Your task to perform on an android device: add a contact Image 0: 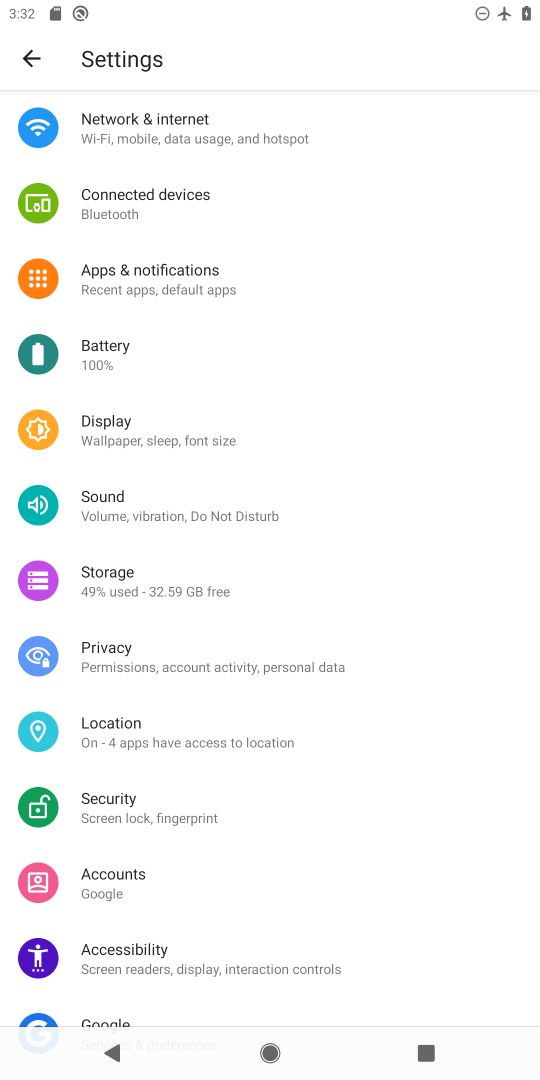
Step 0: press home button
Your task to perform on an android device: add a contact Image 1: 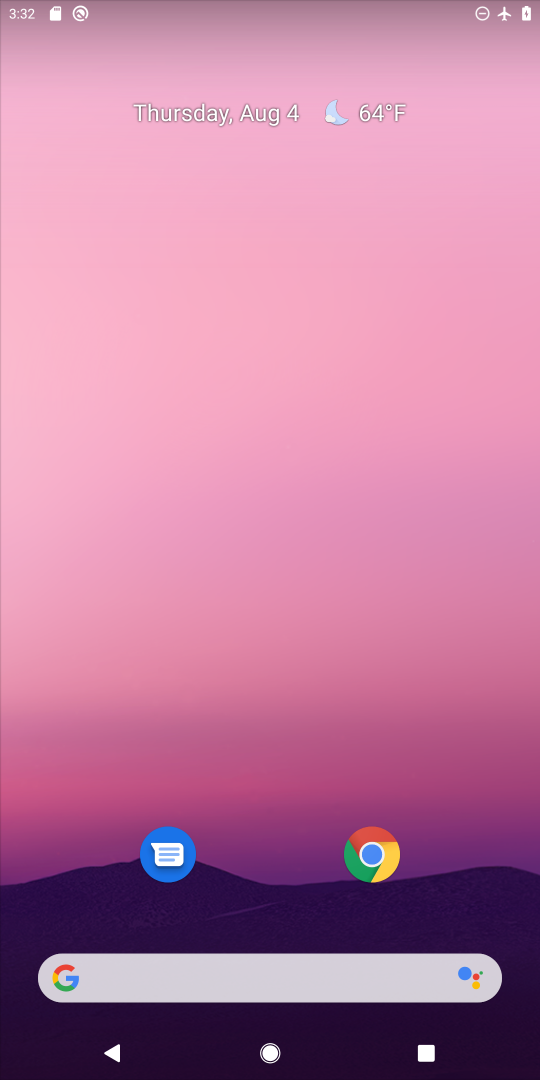
Step 1: drag from (276, 764) to (282, 233)
Your task to perform on an android device: add a contact Image 2: 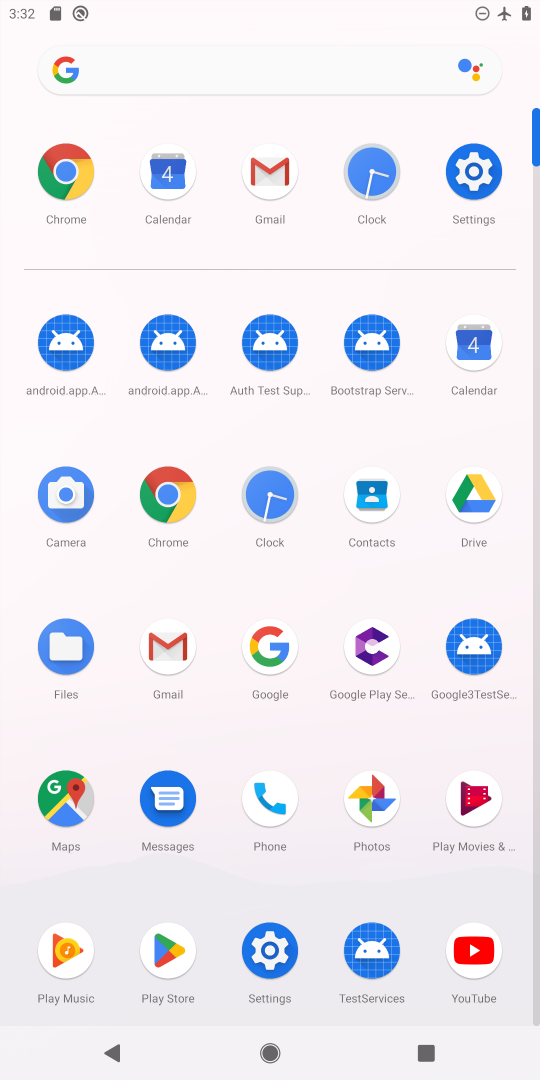
Step 2: click (363, 493)
Your task to perform on an android device: add a contact Image 3: 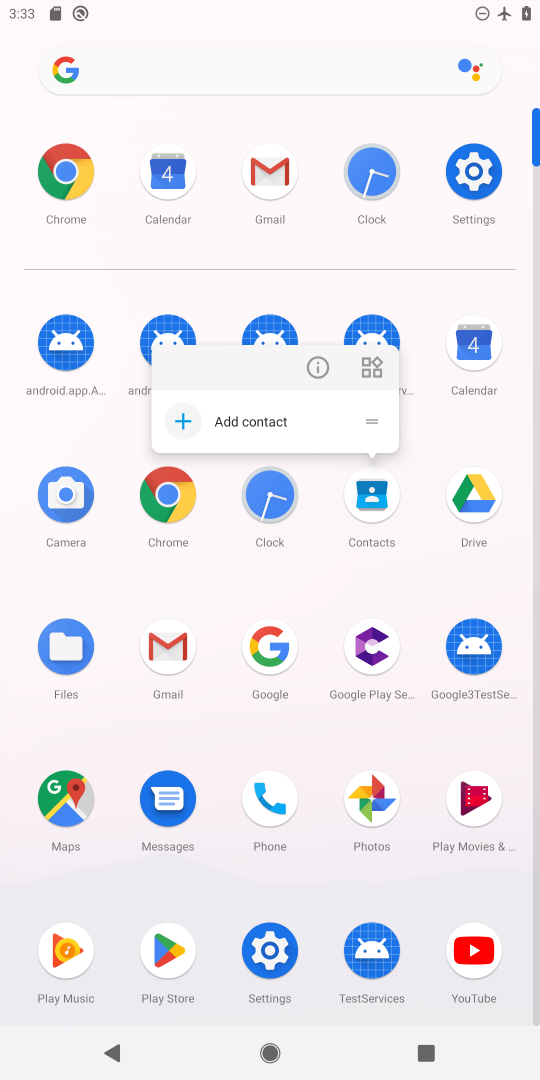
Step 3: click (369, 508)
Your task to perform on an android device: add a contact Image 4: 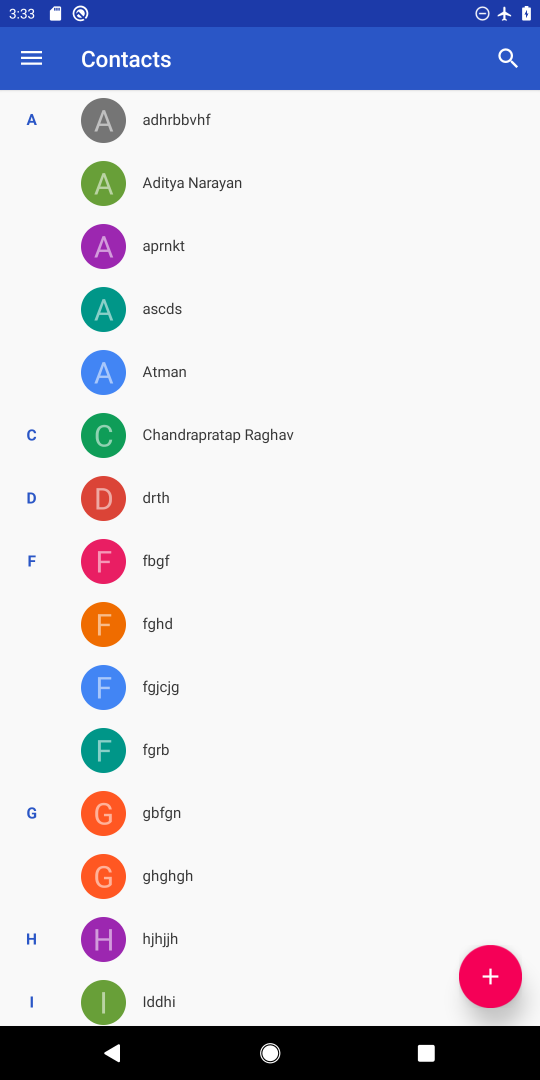
Step 4: task complete